Your task to perform on an android device: open chrome privacy settings Image 0: 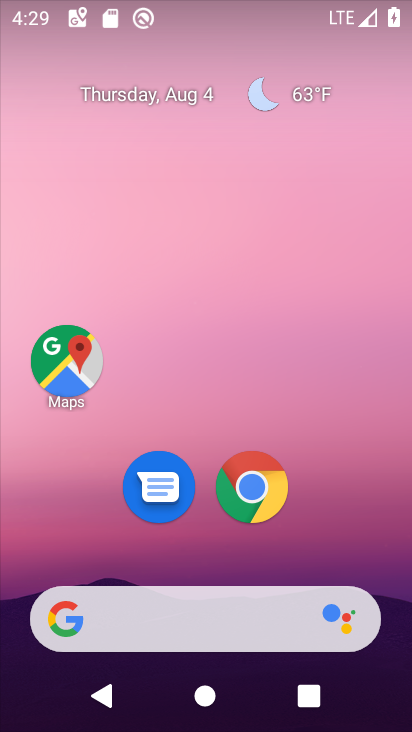
Step 0: click (260, 483)
Your task to perform on an android device: open chrome privacy settings Image 1: 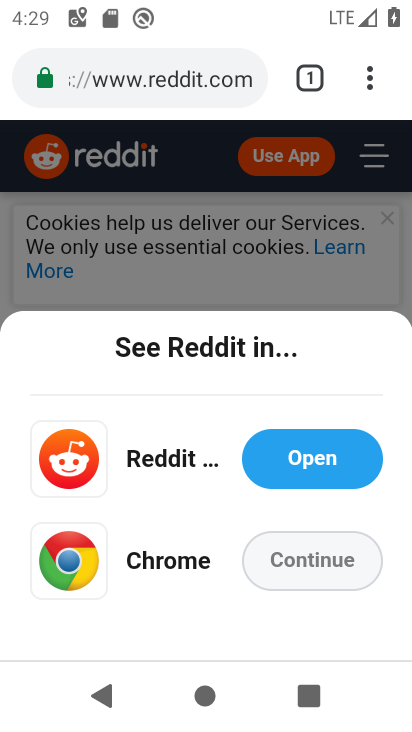
Step 1: drag from (376, 70) to (125, 536)
Your task to perform on an android device: open chrome privacy settings Image 2: 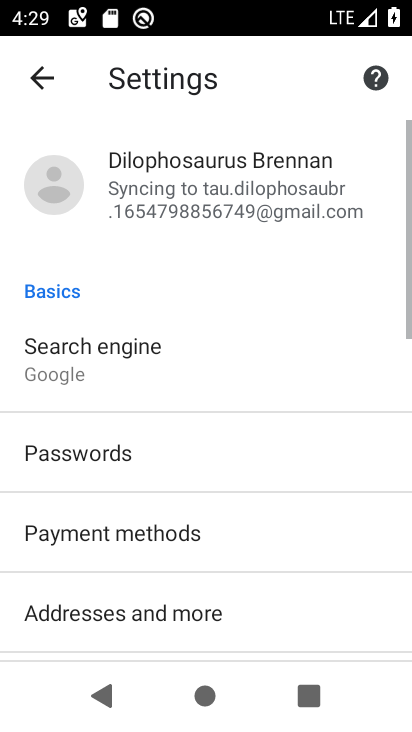
Step 2: drag from (219, 633) to (243, 186)
Your task to perform on an android device: open chrome privacy settings Image 3: 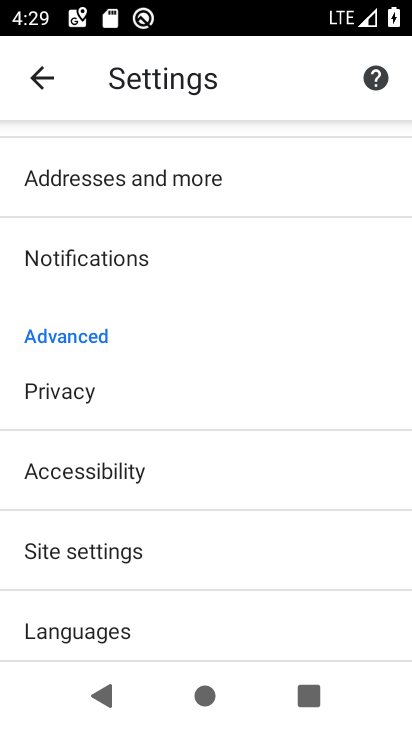
Step 3: click (111, 387)
Your task to perform on an android device: open chrome privacy settings Image 4: 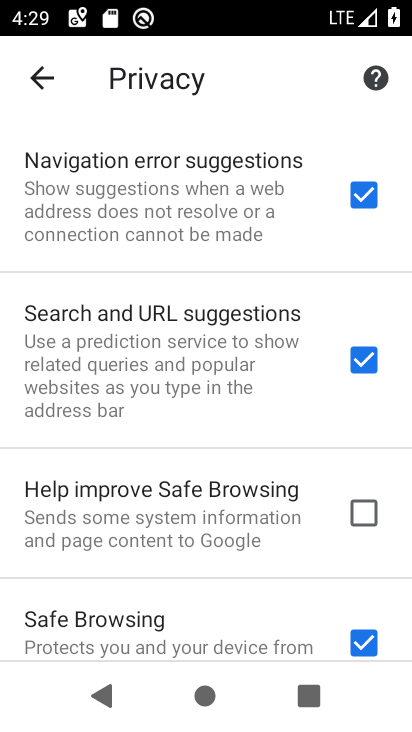
Step 4: task complete